Your task to perform on an android device: What's the weather going to be tomorrow? Image 0: 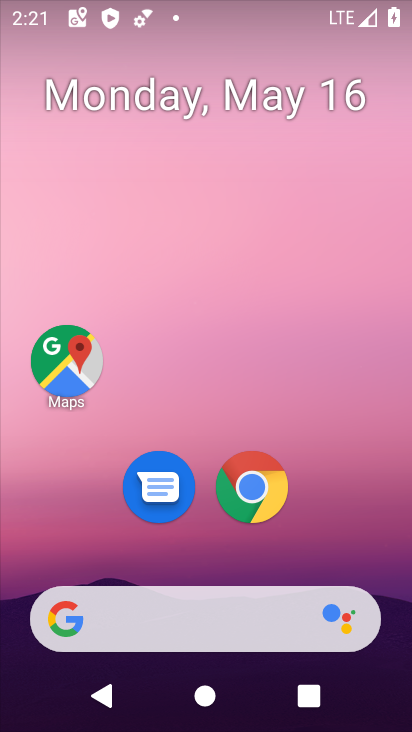
Step 0: drag from (336, 528) to (287, 68)
Your task to perform on an android device: What's the weather going to be tomorrow? Image 1: 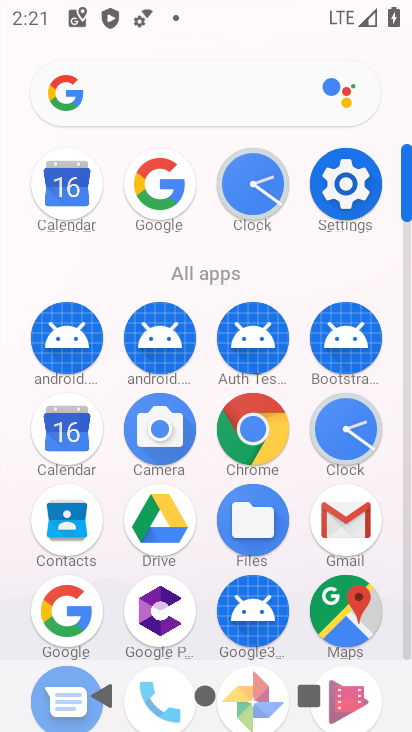
Step 1: click (156, 184)
Your task to perform on an android device: What's the weather going to be tomorrow? Image 2: 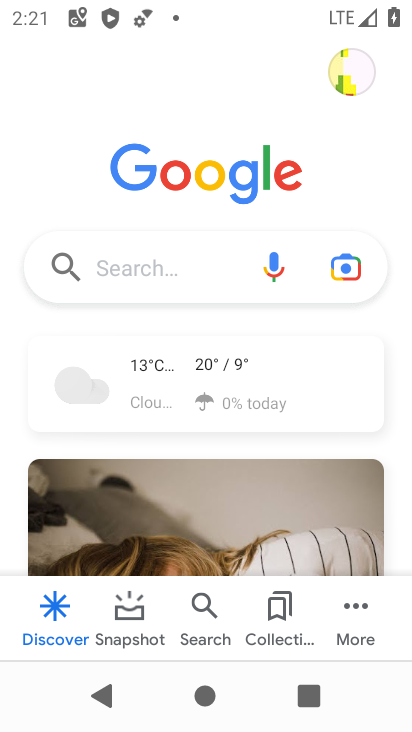
Step 2: click (211, 365)
Your task to perform on an android device: What's the weather going to be tomorrow? Image 3: 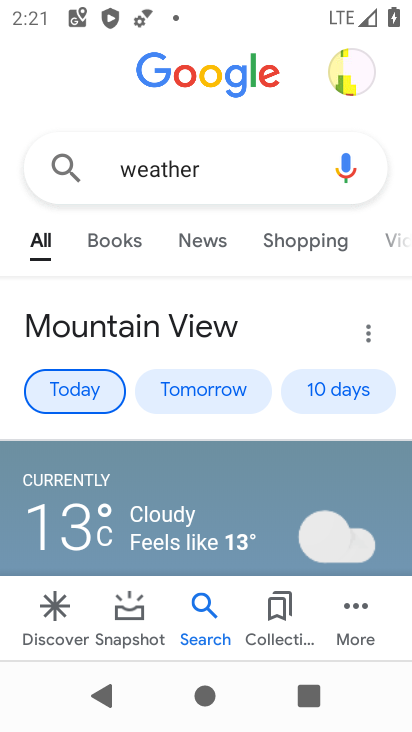
Step 3: click (204, 390)
Your task to perform on an android device: What's the weather going to be tomorrow? Image 4: 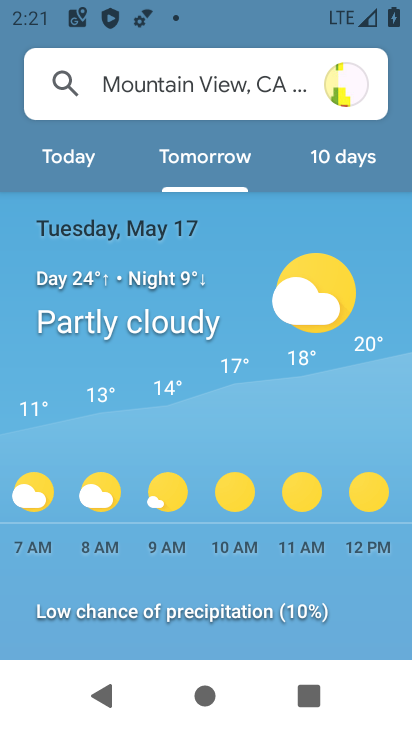
Step 4: task complete